Your task to perform on an android device: toggle data saver in the chrome app Image 0: 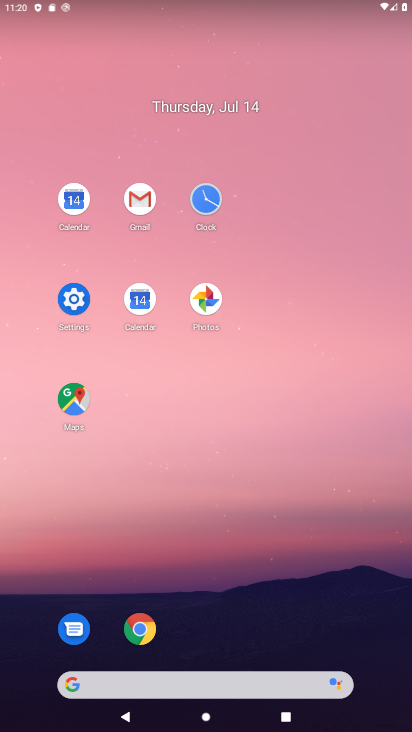
Step 0: click (143, 631)
Your task to perform on an android device: toggle data saver in the chrome app Image 1: 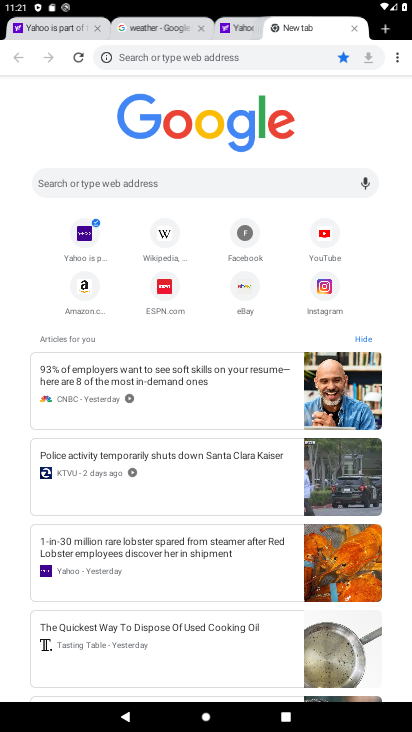
Step 1: press home button
Your task to perform on an android device: toggle data saver in the chrome app Image 2: 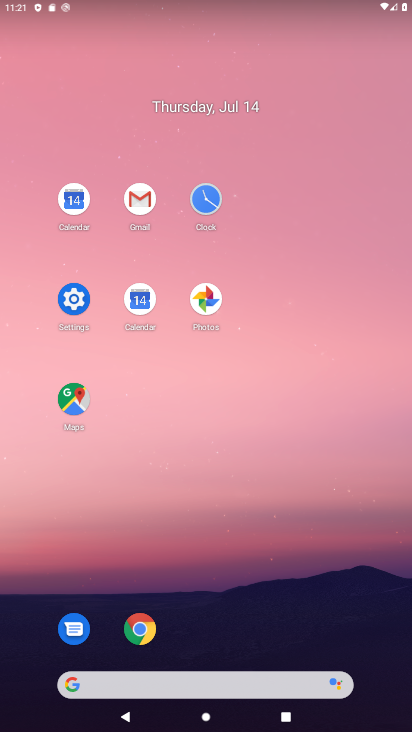
Step 2: click (151, 621)
Your task to perform on an android device: toggle data saver in the chrome app Image 3: 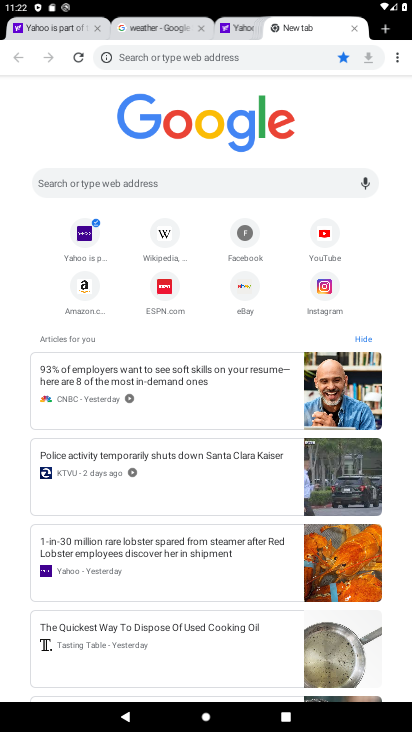
Step 3: click (397, 57)
Your task to perform on an android device: toggle data saver in the chrome app Image 4: 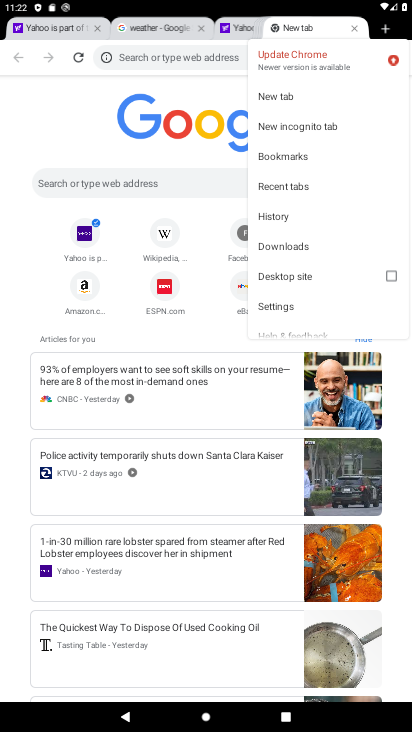
Step 4: click (286, 311)
Your task to perform on an android device: toggle data saver in the chrome app Image 5: 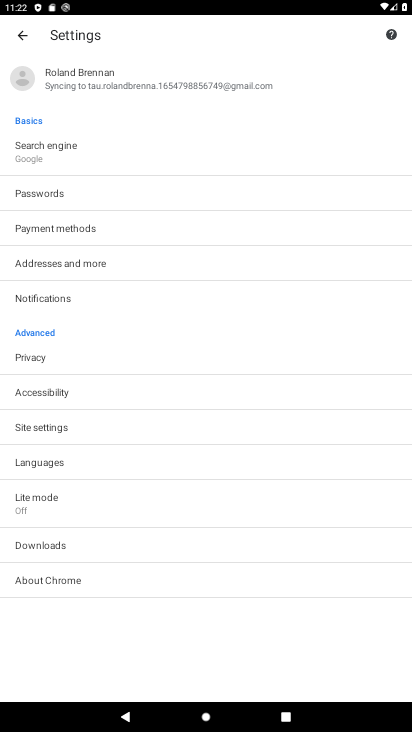
Step 5: click (138, 499)
Your task to perform on an android device: toggle data saver in the chrome app Image 6: 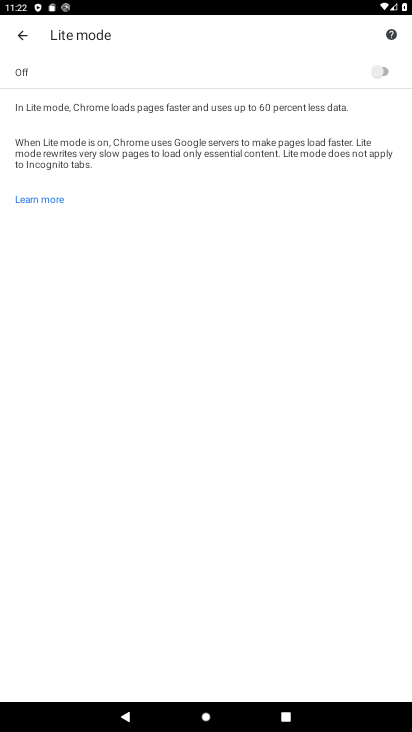
Step 6: click (372, 74)
Your task to perform on an android device: toggle data saver in the chrome app Image 7: 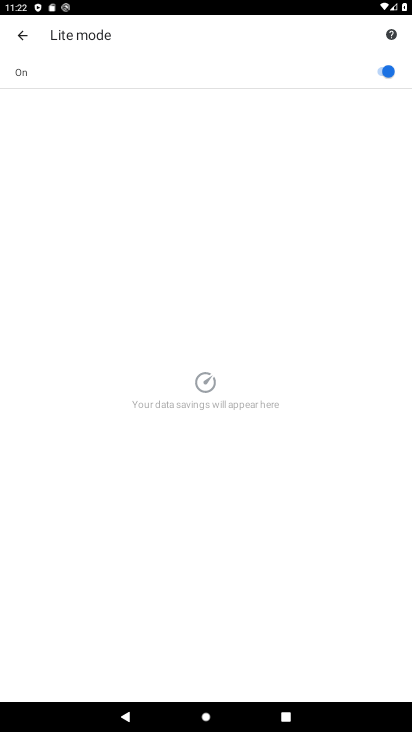
Step 7: task complete